Your task to perform on an android device: Open the calendar app, open the side menu, and click the "Day" option Image 0: 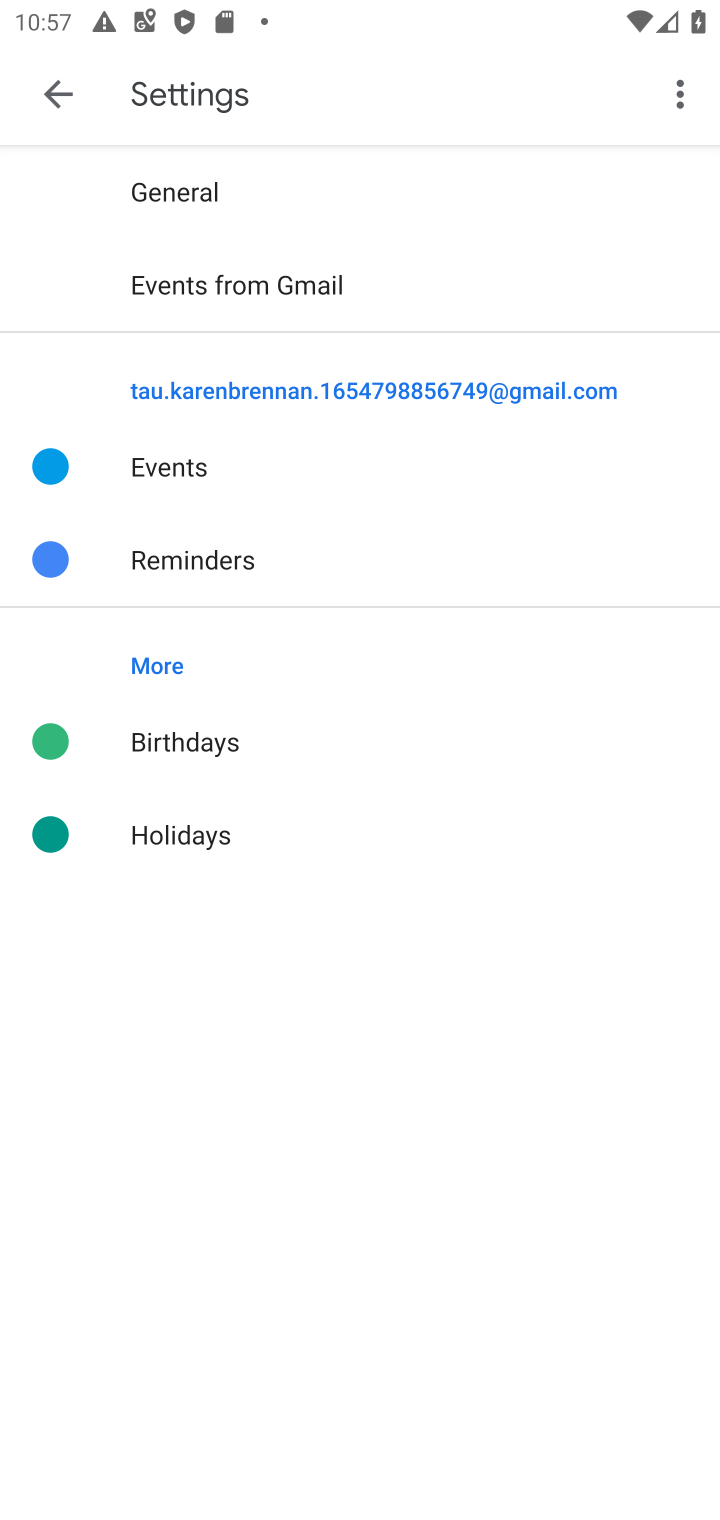
Step 0: press home button
Your task to perform on an android device: Open the calendar app, open the side menu, and click the "Day" option Image 1: 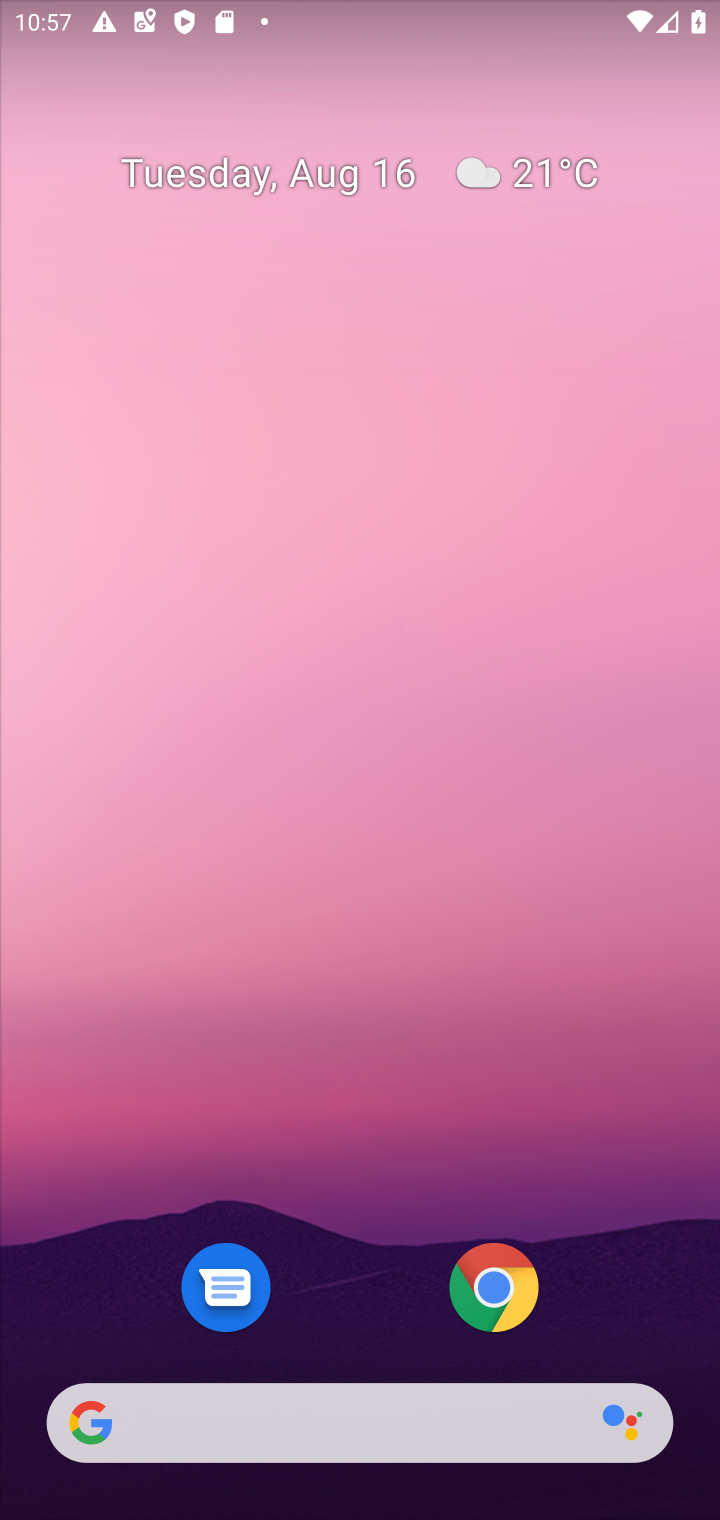
Step 1: drag from (650, 1312) to (584, 118)
Your task to perform on an android device: Open the calendar app, open the side menu, and click the "Day" option Image 2: 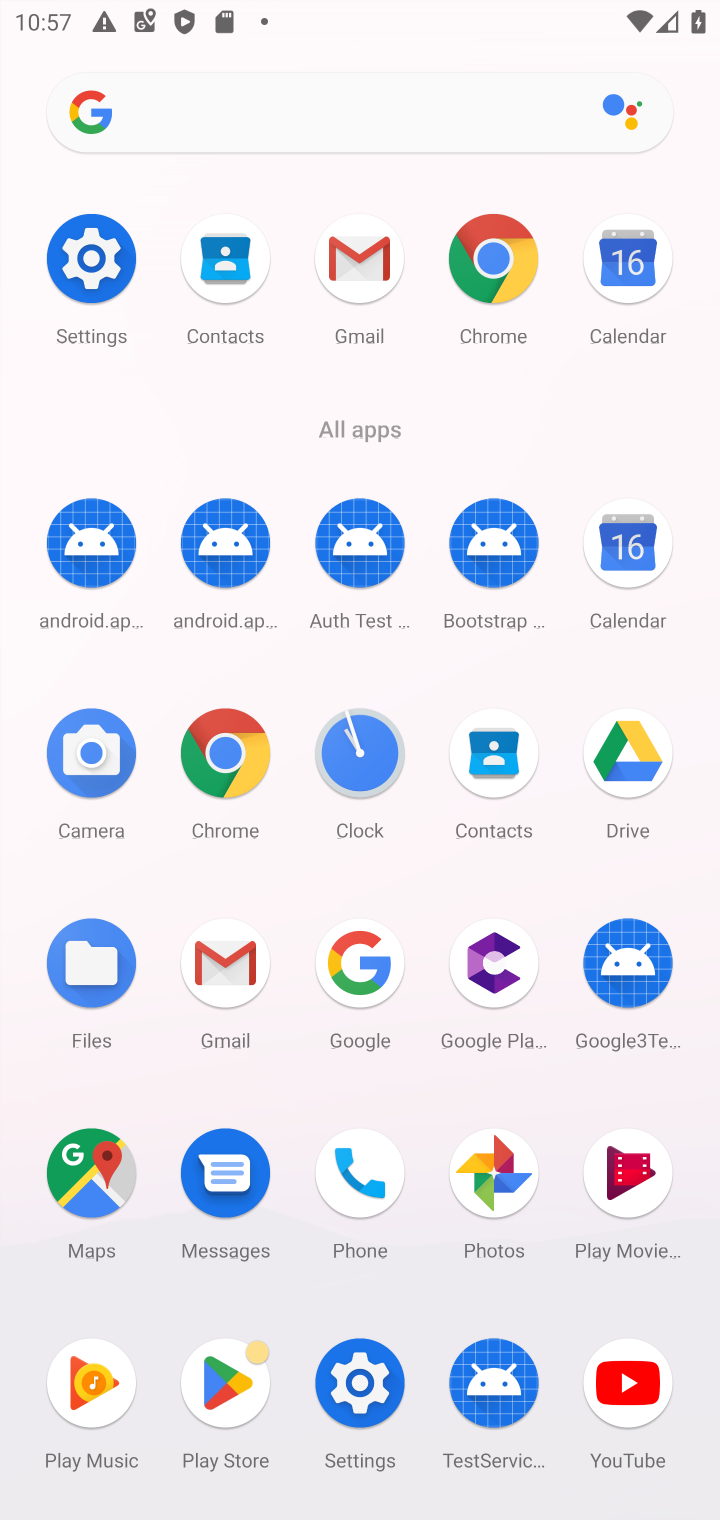
Step 2: click (621, 541)
Your task to perform on an android device: Open the calendar app, open the side menu, and click the "Day" option Image 3: 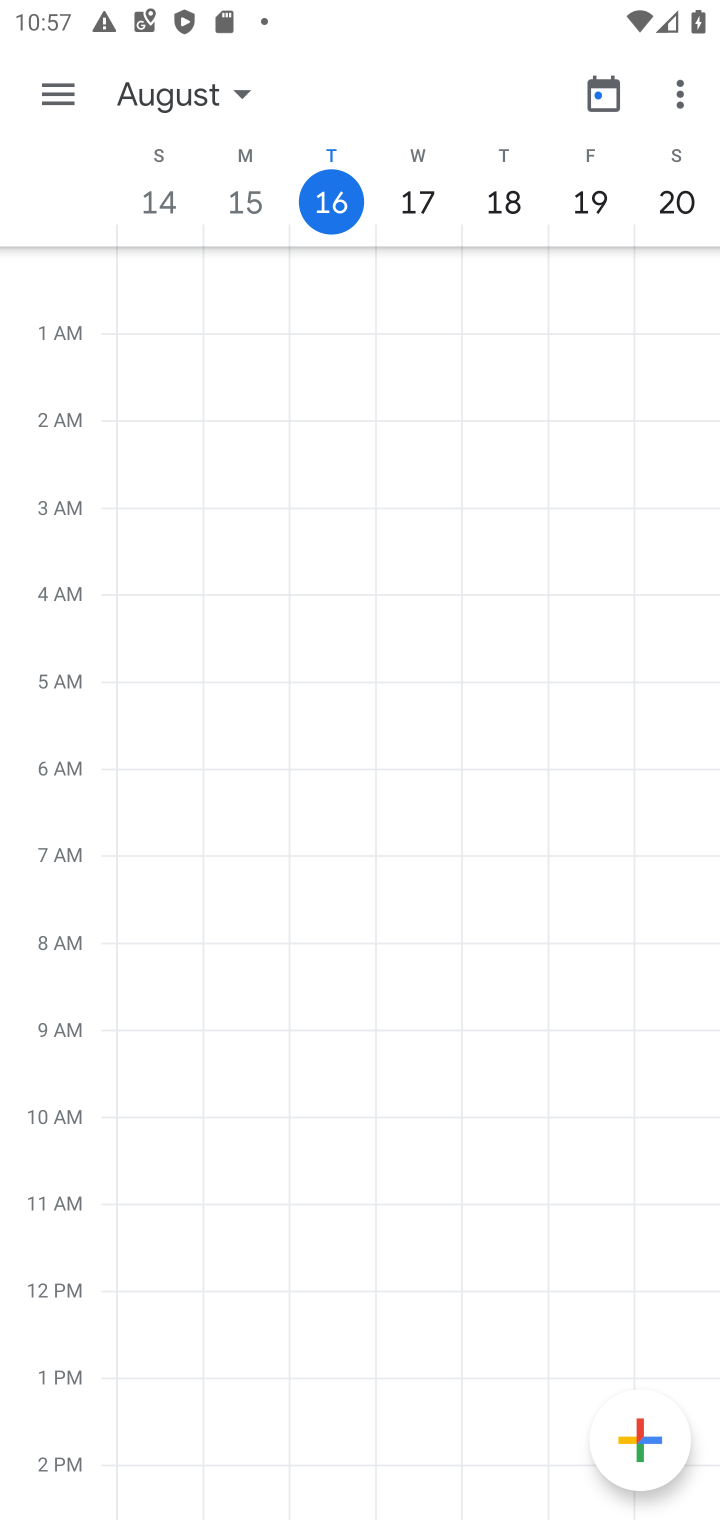
Step 3: click (63, 100)
Your task to perform on an android device: Open the calendar app, open the side menu, and click the "Day" option Image 4: 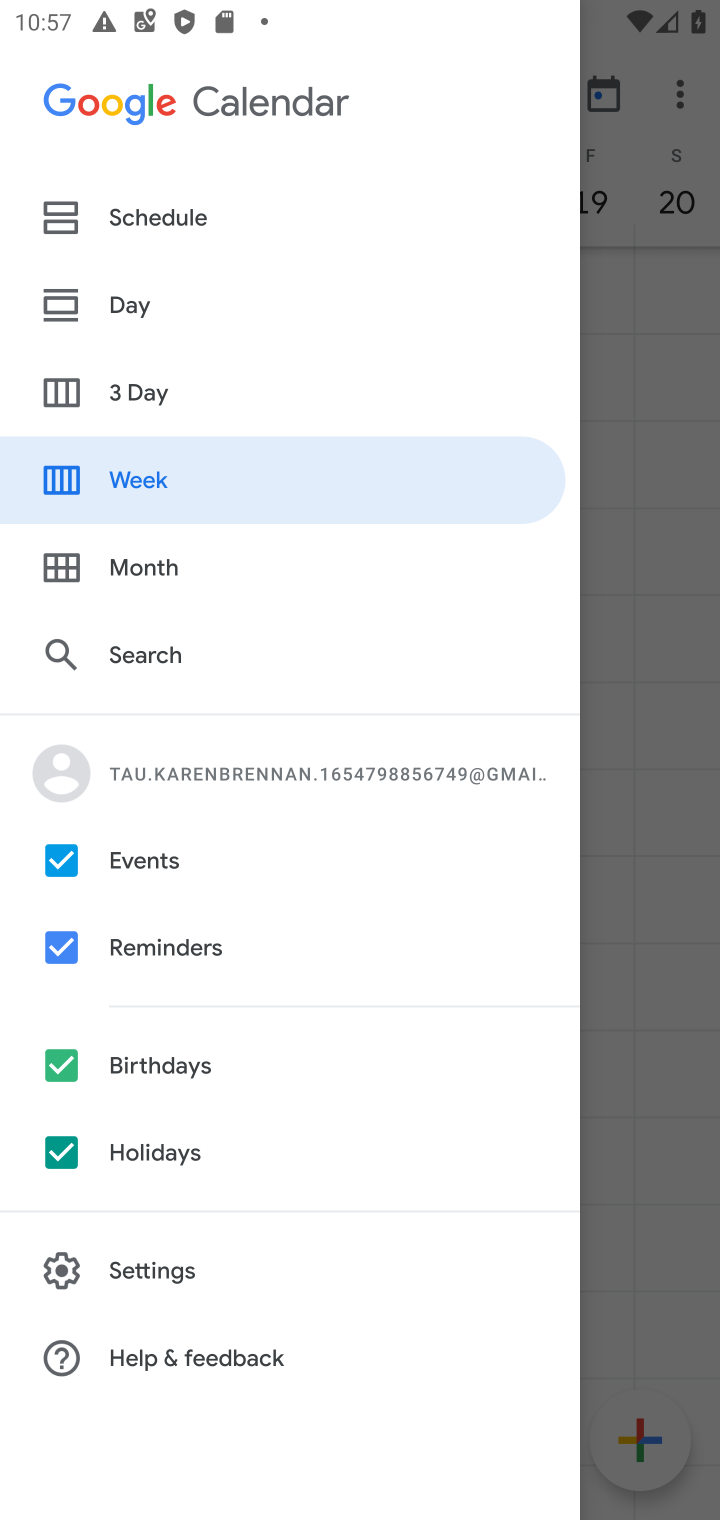
Step 4: click (120, 296)
Your task to perform on an android device: Open the calendar app, open the side menu, and click the "Day" option Image 5: 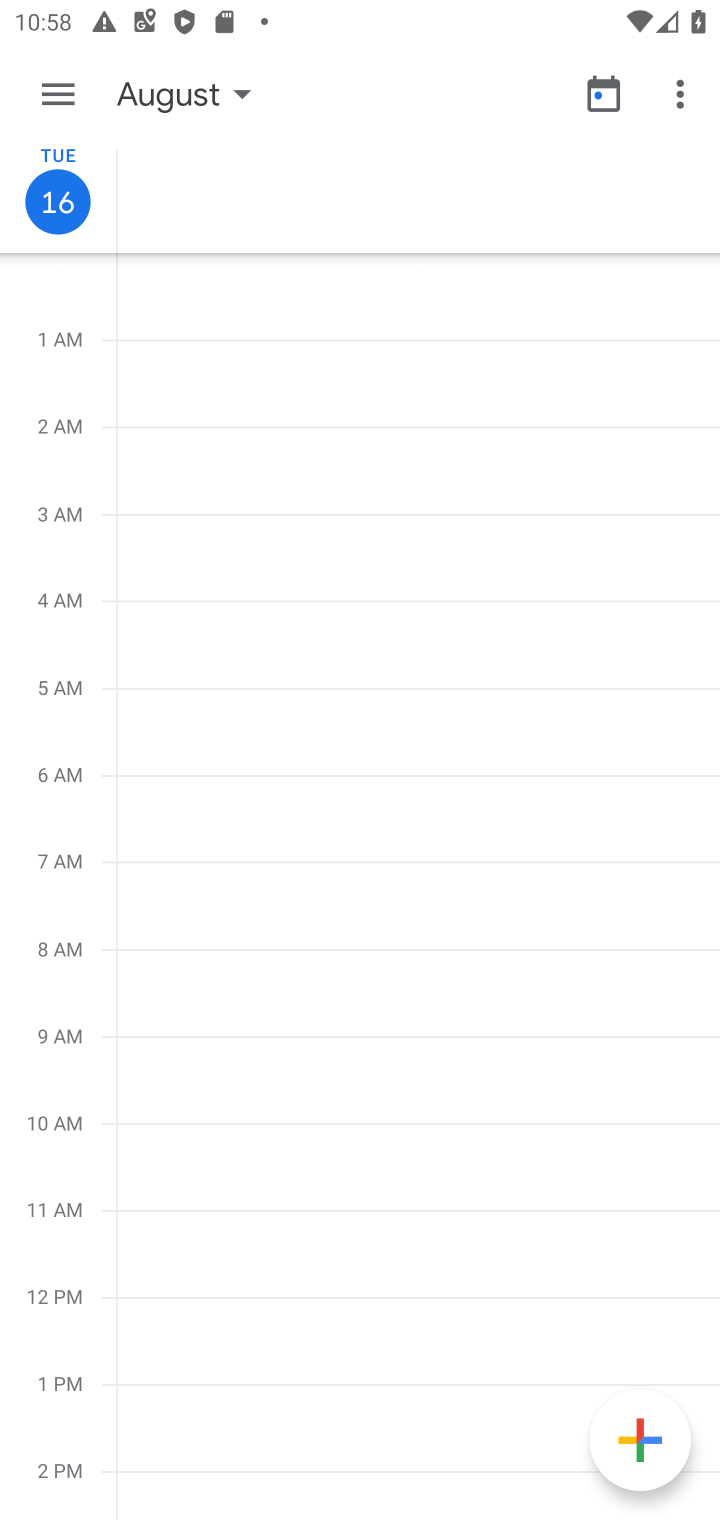
Step 5: task complete